Your task to perform on an android device: Show me popular games on the Play Store Image 0: 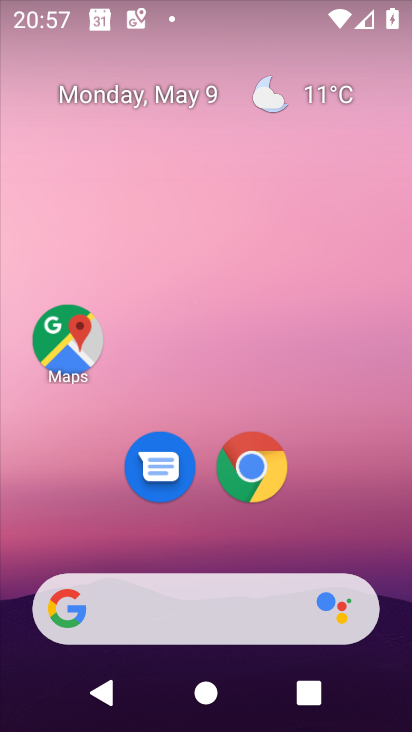
Step 0: drag from (303, 533) to (330, 163)
Your task to perform on an android device: Show me popular games on the Play Store Image 1: 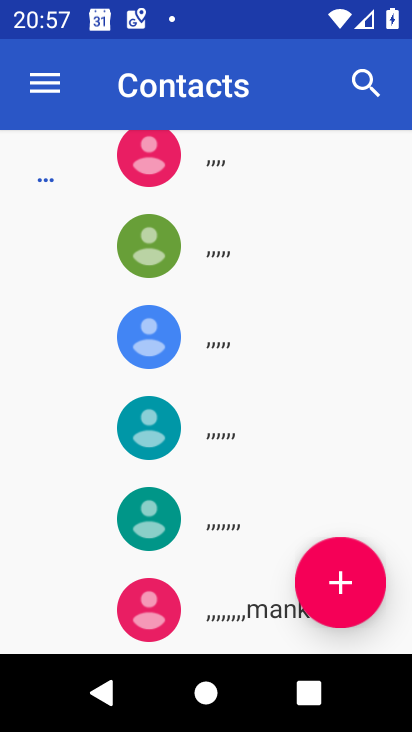
Step 1: press home button
Your task to perform on an android device: Show me popular games on the Play Store Image 2: 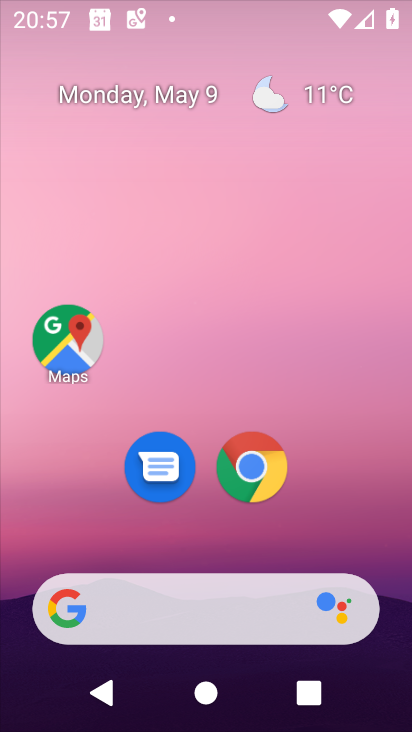
Step 2: drag from (174, 501) to (200, 170)
Your task to perform on an android device: Show me popular games on the Play Store Image 3: 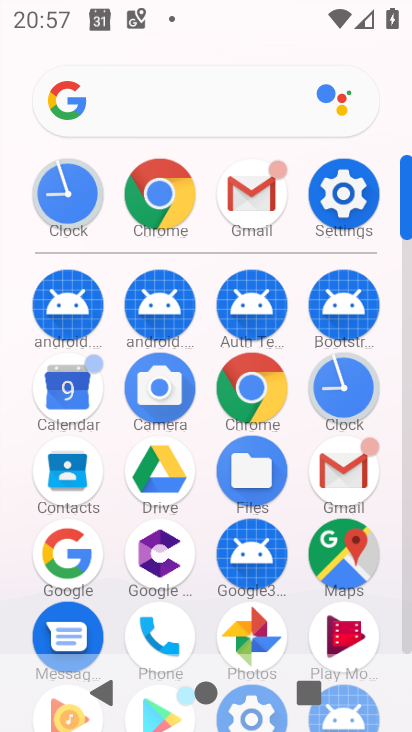
Step 3: drag from (220, 590) to (246, 434)
Your task to perform on an android device: Show me popular games on the Play Store Image 4: 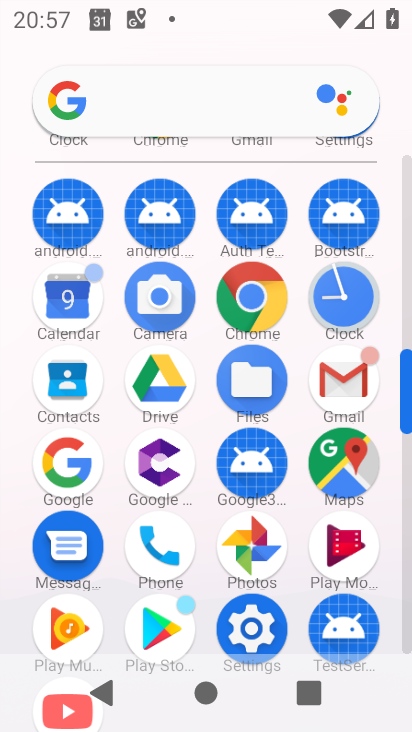
Step 4: click (144, 615)
Your task to perform on an android device: Show me popular games on the Play Store Image 5: 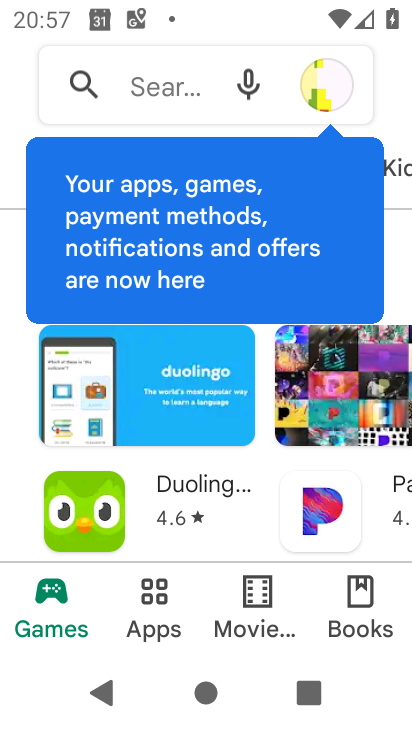
Step 5: click (58, 610)
Your task to perform on an android device: Show me popular games on the Play Store Image 6: 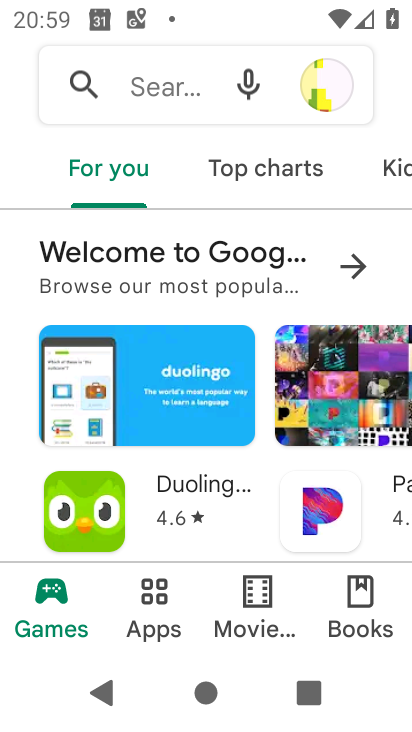
Step 6: task complete